Your task to perform on an android device: see tabs open on other devices in the chrome app Image 0: 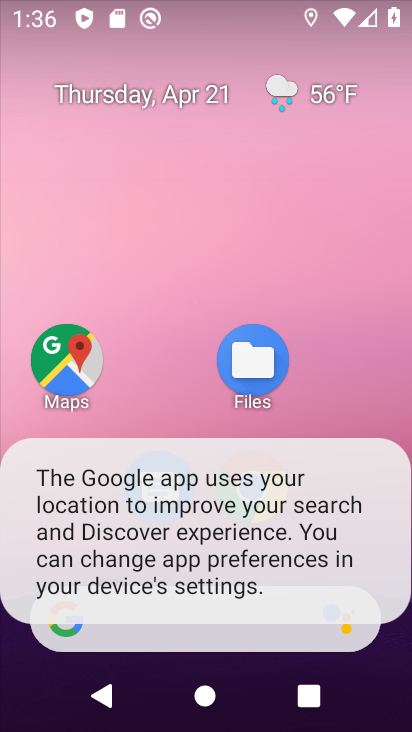
Step 0: drag from (390, 428) to (360, 83)
Your task to perform on an android device: see tabs open on other devices in the chrome app Image 1: 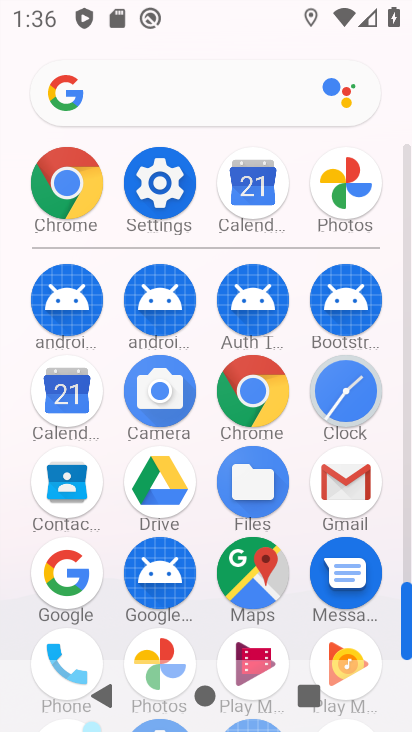
Step 1: click (251, 397)
Your task to perform on an android device: see tabs open on other devices in the chrome app Image 2: 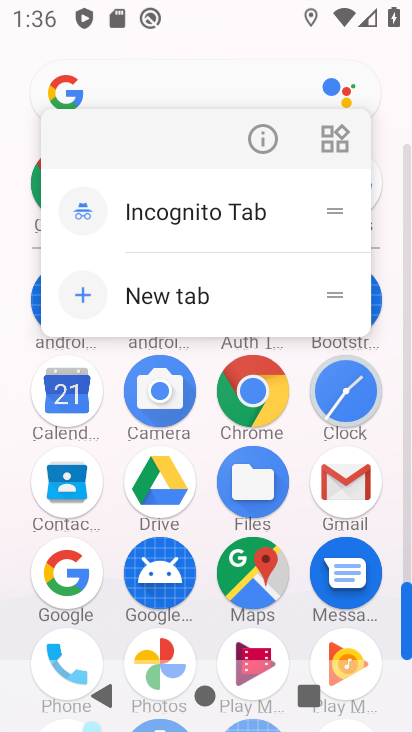
Step 2: click (251, 397)
Your task to perform on an android device: see tabs open on other devices in the chrome app Image 3: 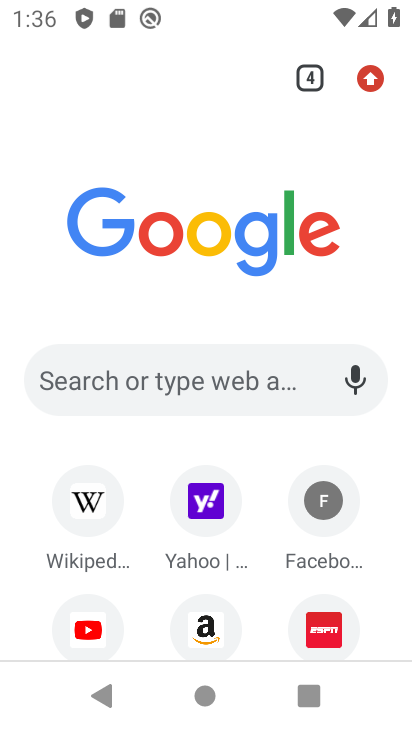
Step 3: click (313, 77)
Your task to perform on an android device: see tabs open on other devices in the chrome app Image 4: 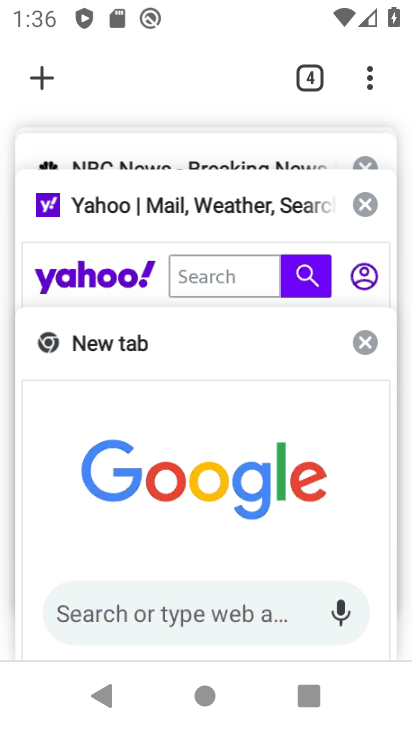
Step 4: task complete